Your task to perform on an android device: Open Google Chrome Image 0: 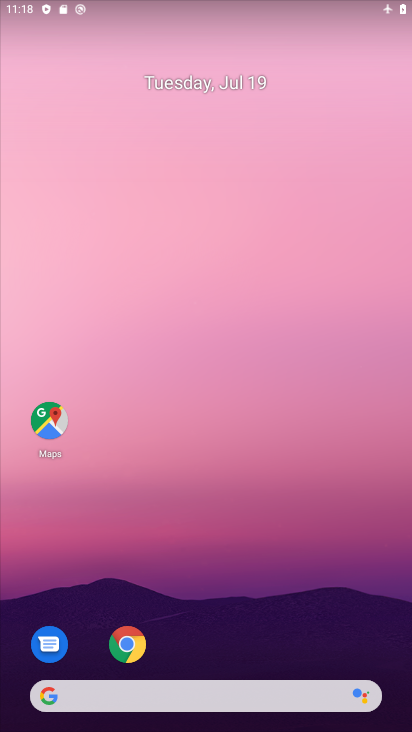
Step 0: click (129, 651)
Your task to perform on an android device: Open Google Chrome Image 1: 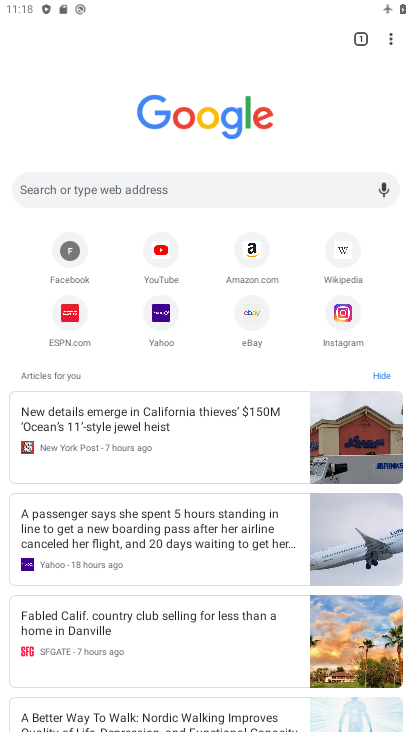
Step 1: task complete